Your task to perform on an android device: Open Youtube and go to "Your channel" Image 0: 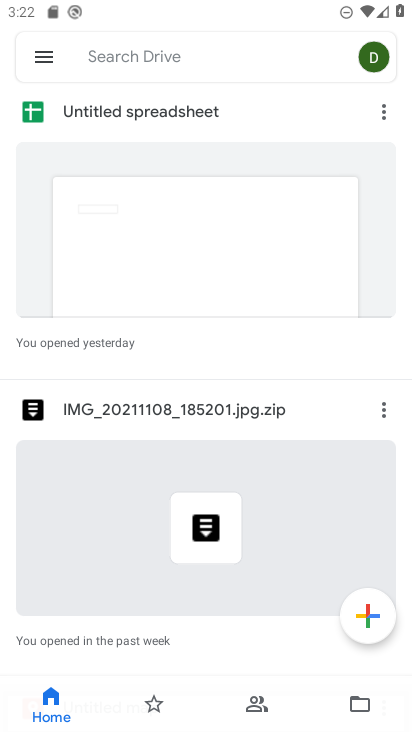
Step 0: drag from (271, 614) to (211, 307)
Your task to perform on an android device: Open Youtube and go to "Your channel" Image 1: 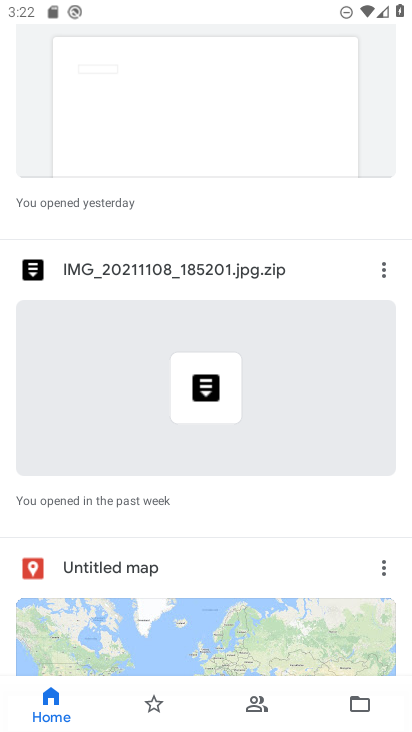
Step 1: press home button
Your task to perform on an android device: Open Youtube and go to "Your channel" Image 2: 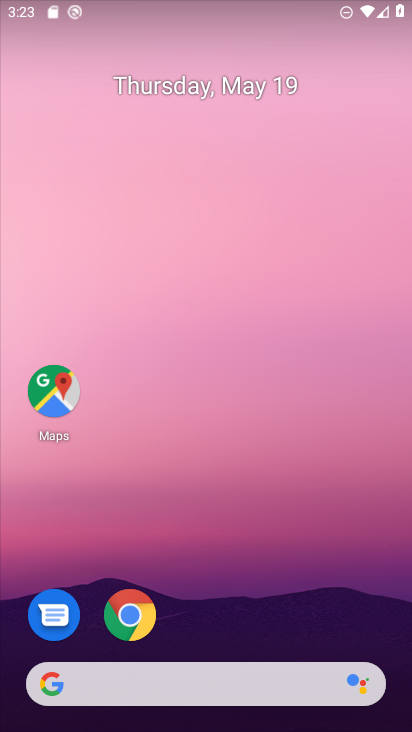
Step 2: drag from (287, 623) to (213, 140)
Your task to perform on an android device: Open Youtube and go to "Your channel" Image 3: 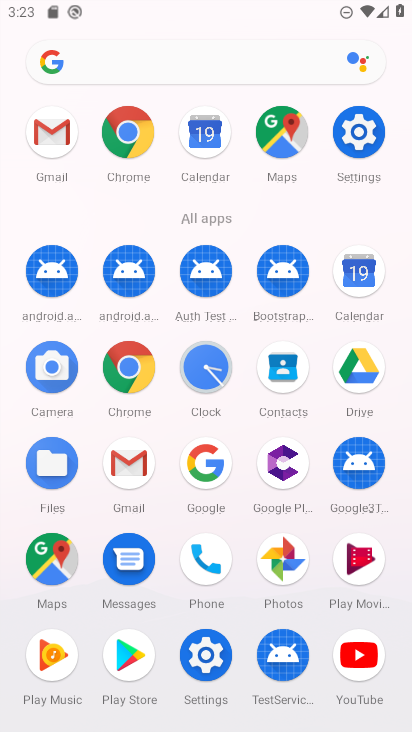
Step 3: click (362, 663)
Your task to perform on an android device: Open Youtube and go to "Your channel" Image 4: 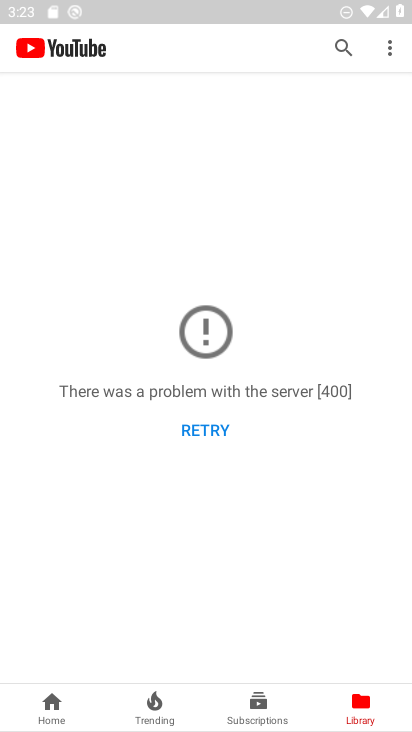
Step 4: task complete